Your task to perform on an android device: Do I have any events this weekend? Image 0: 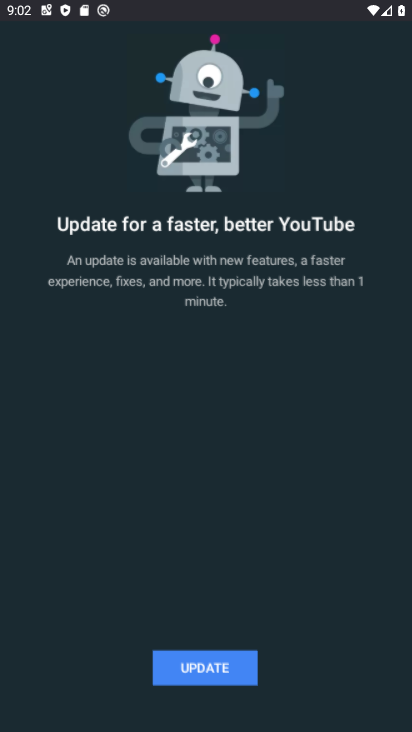
Step 0: drag from (219, 624) to (223, 573)
Your task to perform on an android device: Do I have any events this weekend? Image 1: 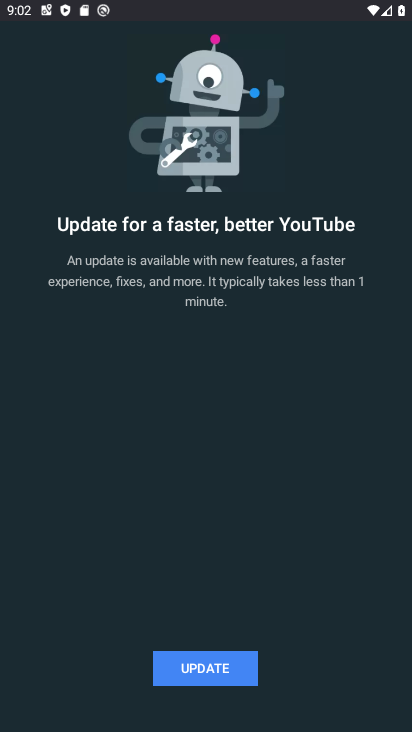
Step 1: press home button
Your task to perform on an android device: Do I have any events this weekend? Image 2: 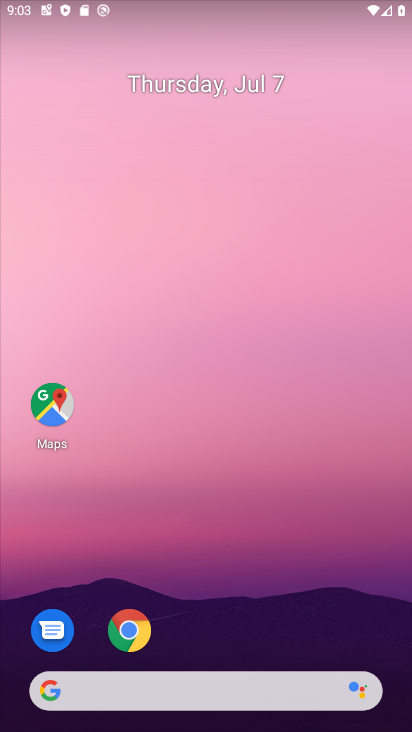
Step 2: click (141, 619)
Your task to perform on an android device: Do I have any events this weekend? Image 3: 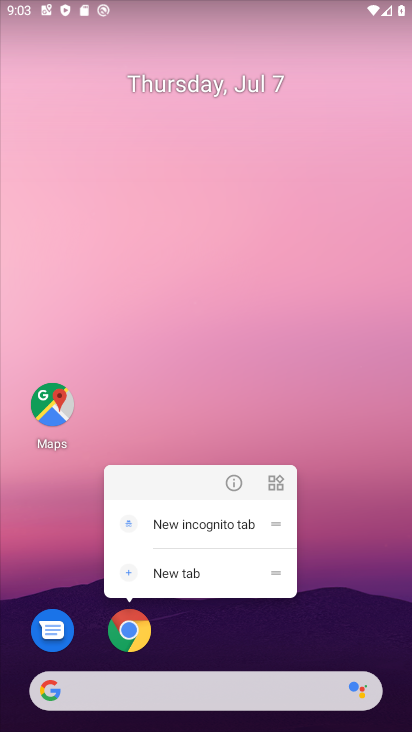
Step 3: click (132, 634)
Your task to perform on an android device: Do I have any events this weekend? Image 4: 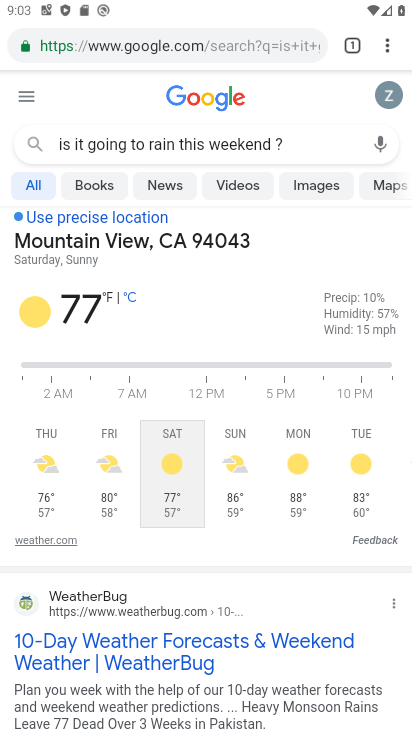
Step 4: click (227, 47)
Your task to perform on an android device: Do I have any events this weekend? Image 5: 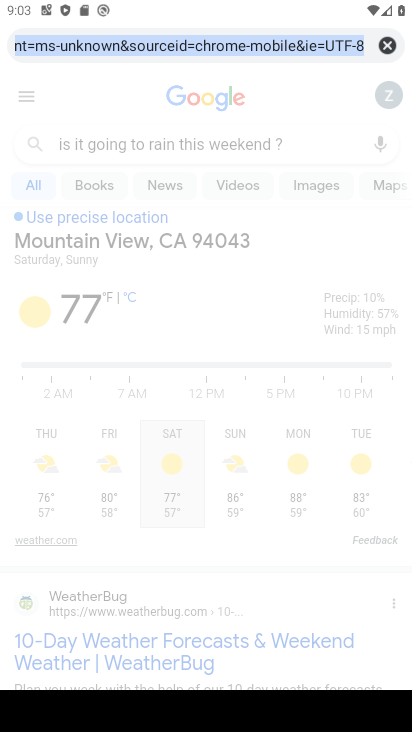
Step 5: click (390, 44)
Your task to perform on an android device: Do I have any events this weekend? Image 6: 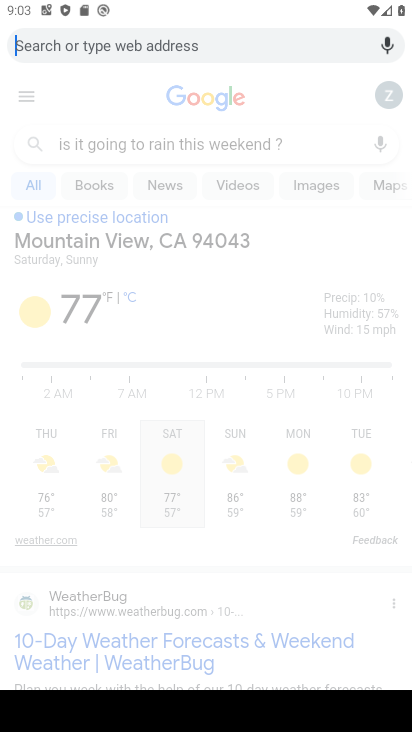
Step 6: press home button
Your task to perform on an android device: Do I have any events this weekend? Image 7: 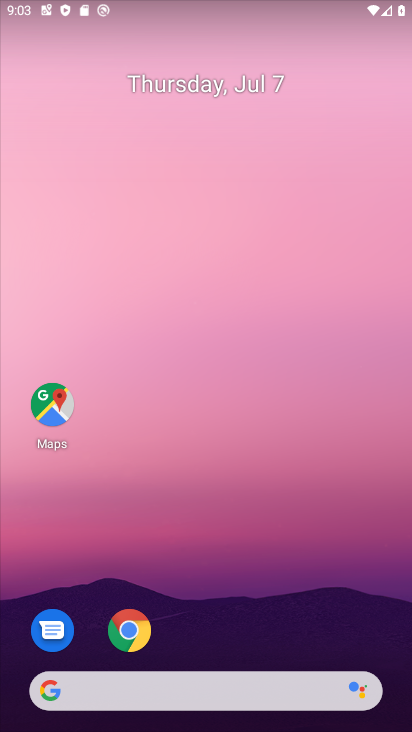
Step 7: drag from (318, 608) to (385, 2)
Your task to perform on an android device: Do I have any events this weekend? Image 8: 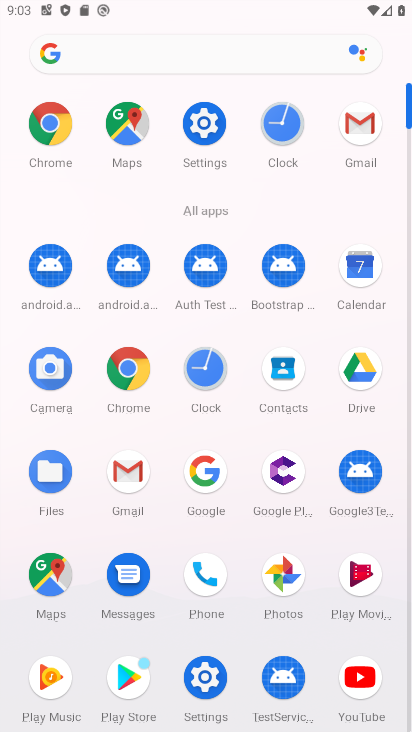
Step 8: click (357, 264)
Your task to perform on an android device: Do I have any events this weekend? Image 9: 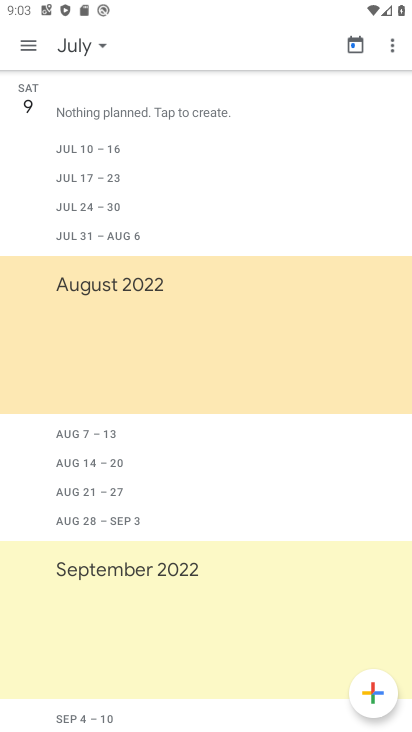
Step 9: click (99, 45)
Your task to perform on an android device: Do I have any events this weekend? Image 10: 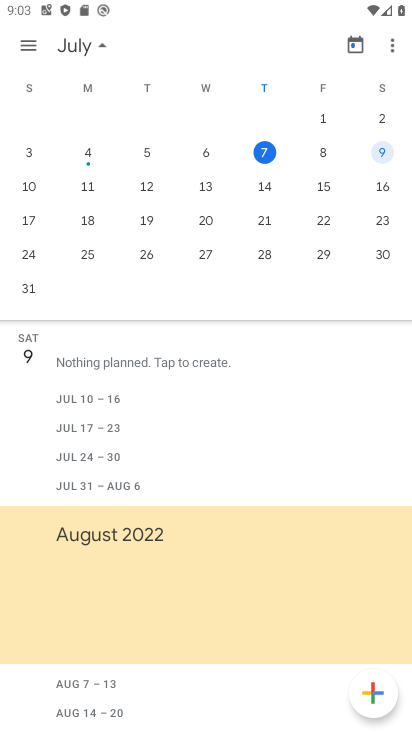
Step 10: click (381, 149)
Your task to perform on an android device: Do I have any events this weekend? Image 11: 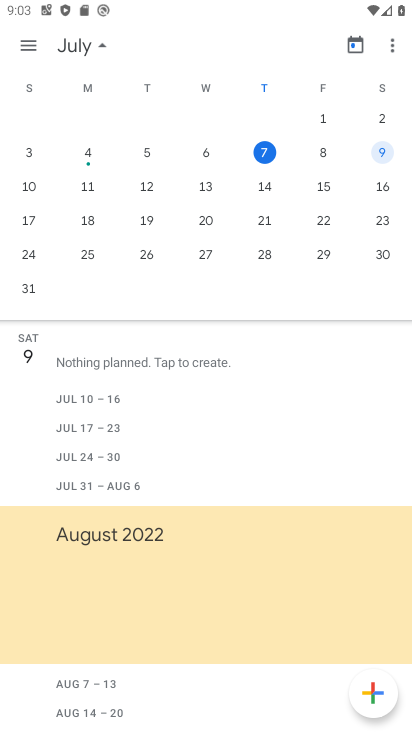
Step 11: task complete